Your task to perform on an android device: toggle wifi Image 0: 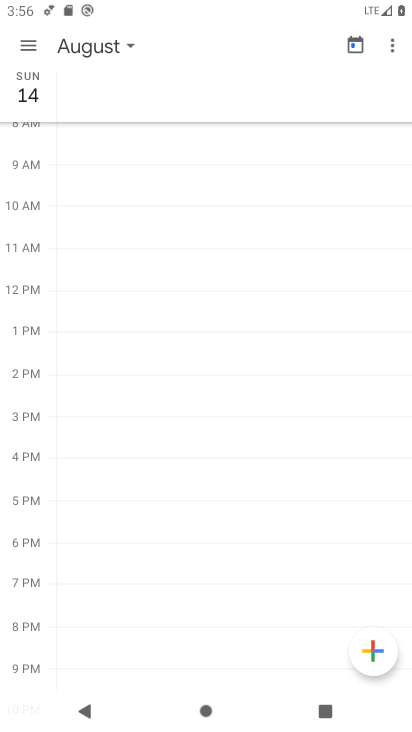
Step 0: press home button
Your task to perform on an android device: toggle wifi Image 1: 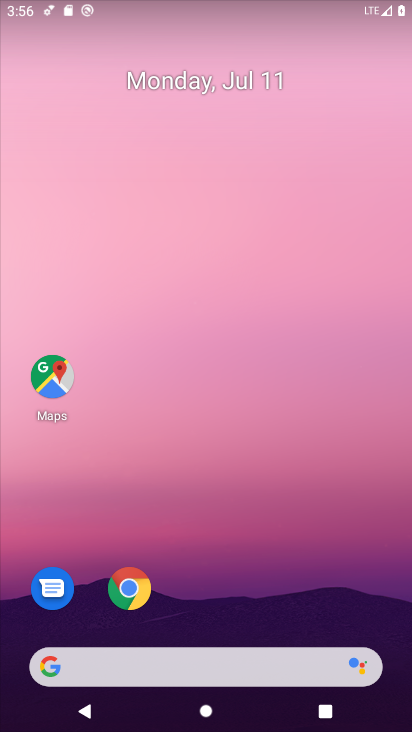
Step 1: drag from (216, 599) to (188, 76)
Your task to perform on an android device: toggle wifi Image 2: 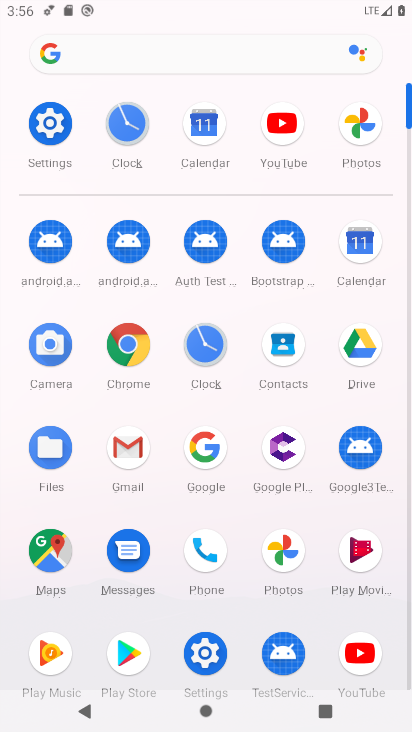
Step 2: click (49, 117)
Your task to perform on an android device: toggle wifi Image 3: 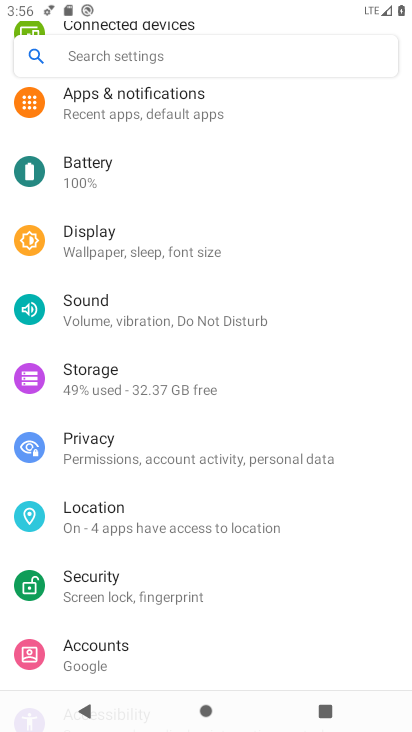
Step 3: drag from (229, 125) to (235, 603)
Your task to perform on an android device: toggle wifi Image 4: 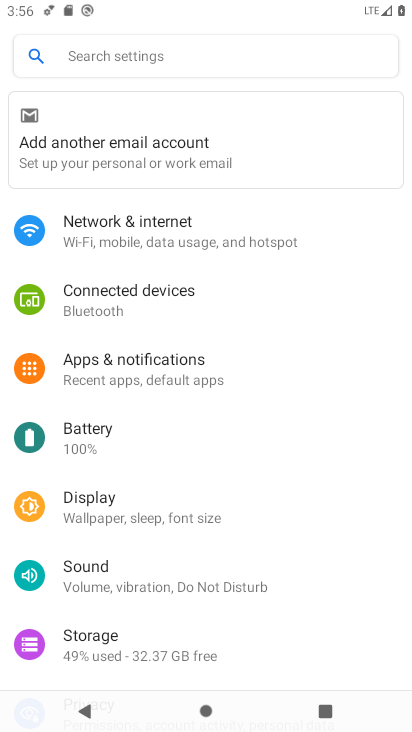
Step 4: click (133, 226)
Your task to perform on an android device: toggle wifi Image 5: 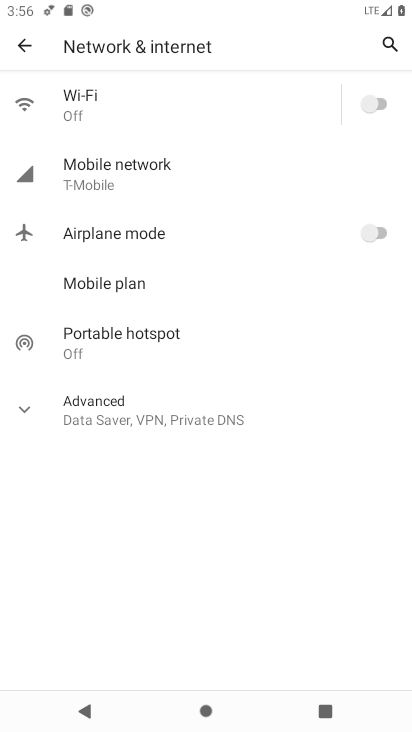
Step 5: click (378, 97)
Your task to perform on an android device: toggle wifi Image 6: 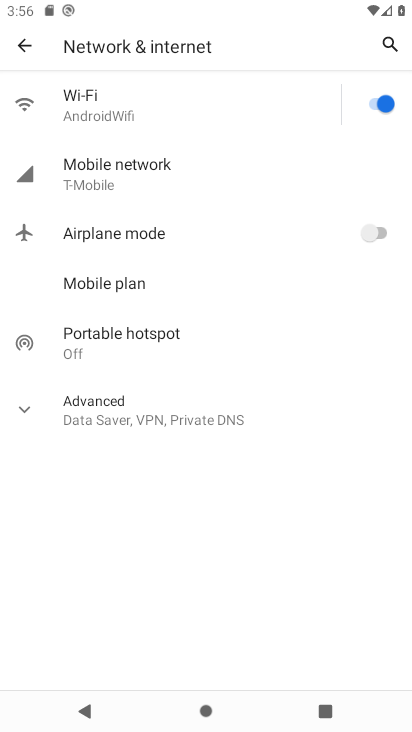
Step 6: task complete